Your task to perform on an android device: change text size in settings app Image 0: 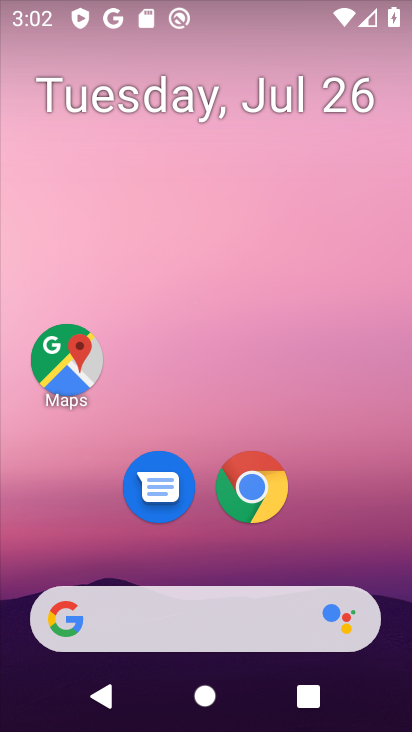
Step 0: drag from (158, 570) to (287, 6)
Your task to perform on an android device: change text size in settings app Image 1: 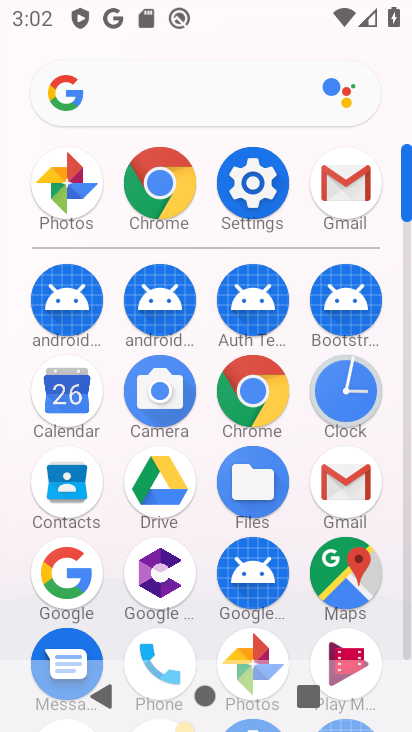
Step 1: click (265, 171)
Your task to perform on an android device: change text size in settings app Image 2: 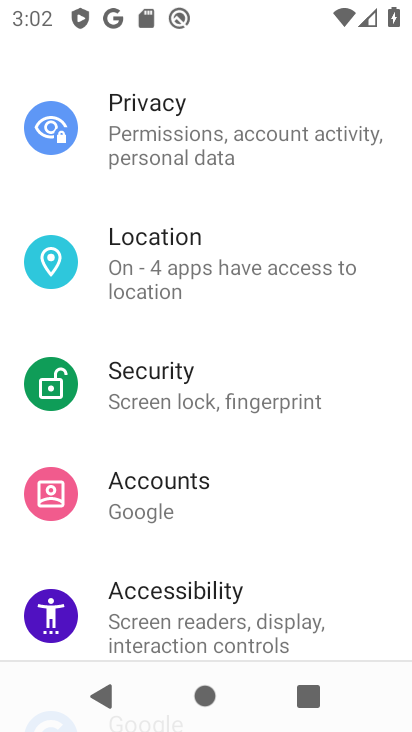
Step 2: drag from (217, 102) to (153, 704)
Your task to perform on an android device: change text size in settings app Image 3: 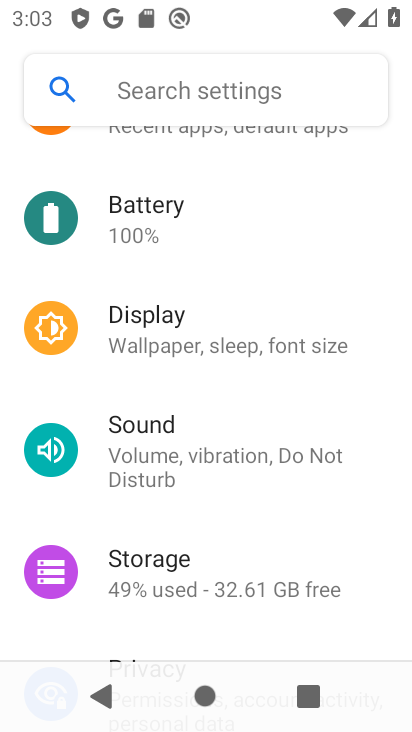
Step 3: click (179, 92)
Your task to perform on an android device: change text size in settings app Image 4: 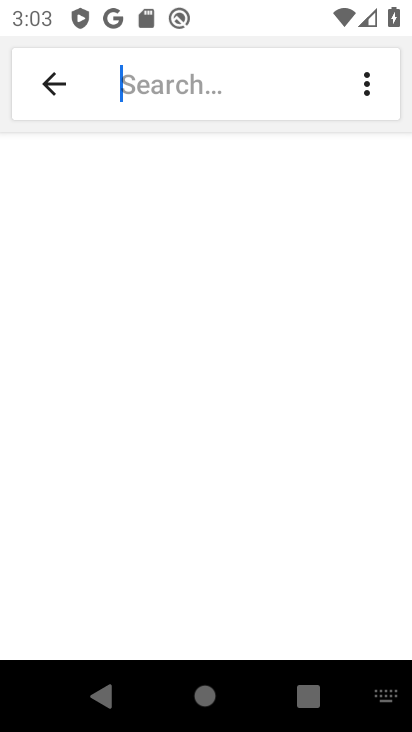
Step 4: type "text size"
Your task to perform on an android device: change text size in settings app Image 5: 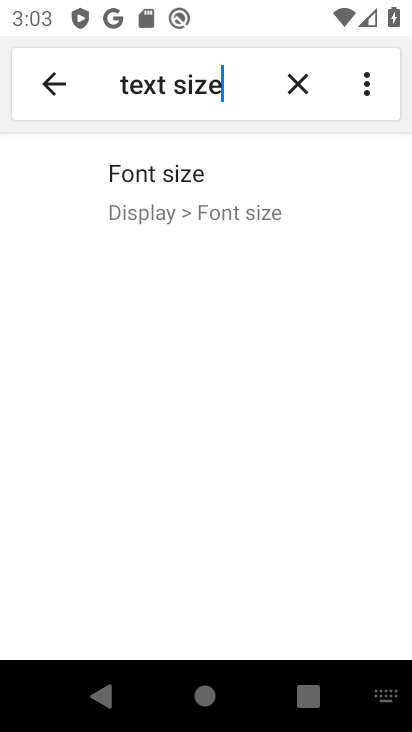
Step 5: click (177, 177)
Your task to perform on an android device: change text size in settings app Image 6: 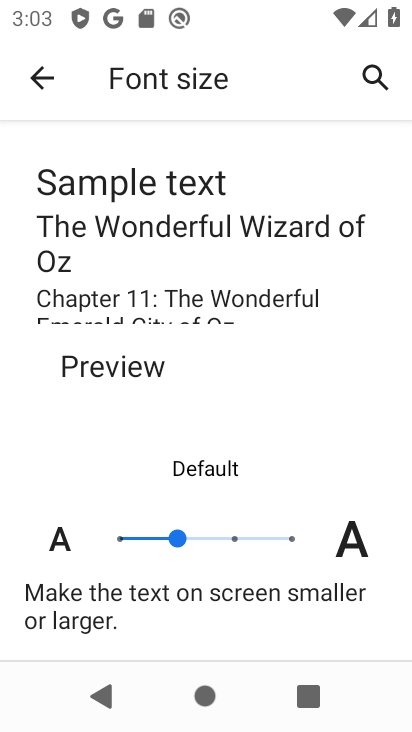
Step 6: task complete